Your task to perform on an android device: Search for sushi restaurants on Maps Image 0: 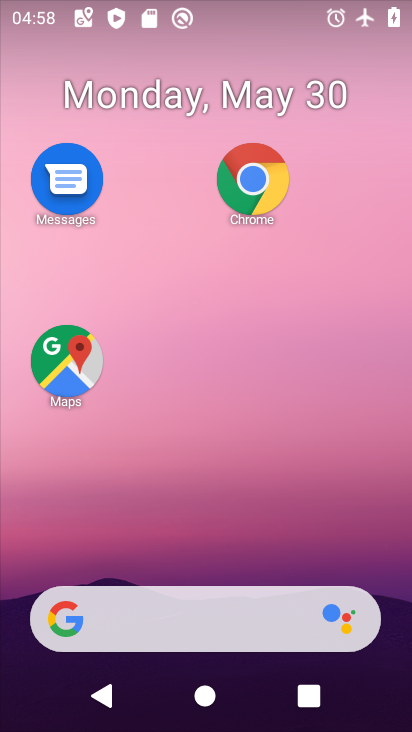
Step 0: click (66, 362)
Your task to perform on an android device: Search for sushi restaurants on Maps Image 1: 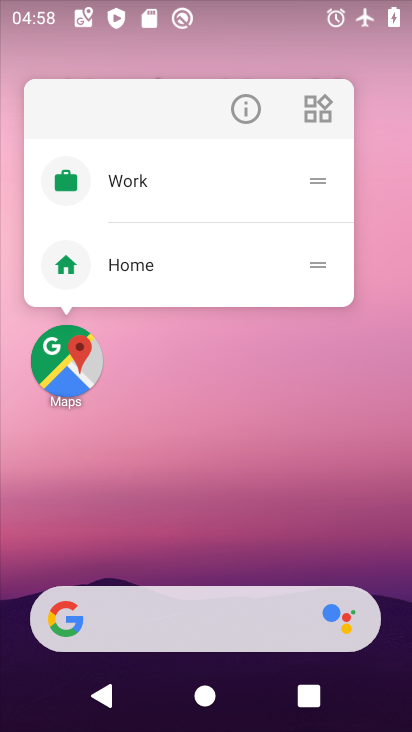
Step 1: click (65, 363)
Your task to perform on an android device: Search for sushi restaurants on Maps Image 2: 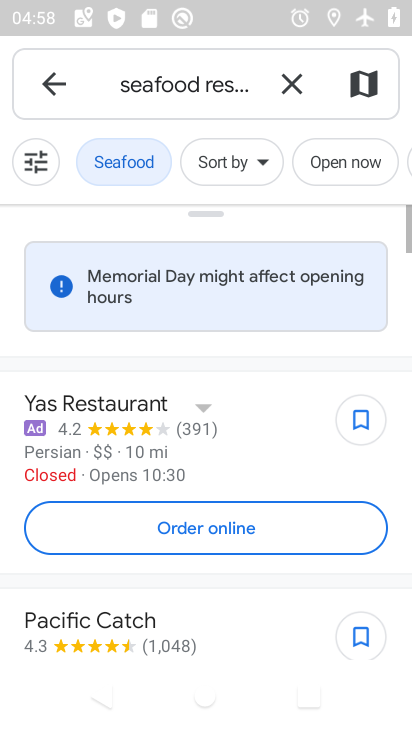
Step 2: click (296, 86)
Your task to perform on an android device: Search for sushi restaurants on Maps Image 3: 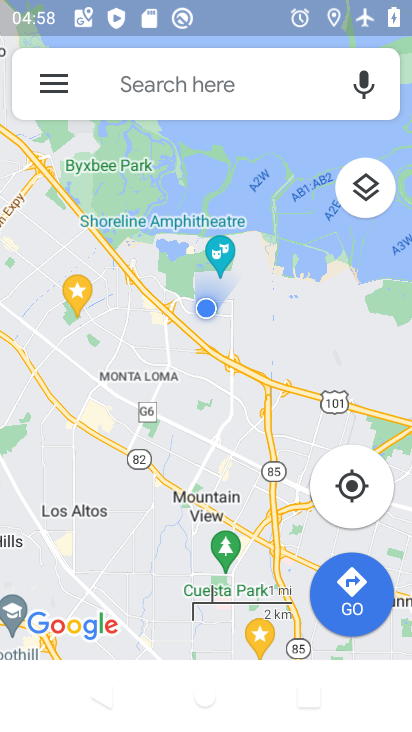
Step 3: click (162, 83)
Your task to perform on an android device: Search for sushi restaurants on Maps Image 4: 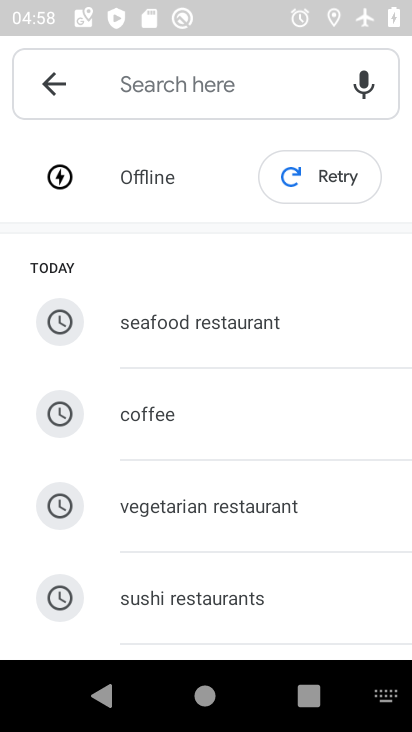
Step 4: click (156, 597)
Your task to perform on an android device: Search for sushi restaurants on Maps Image 5: 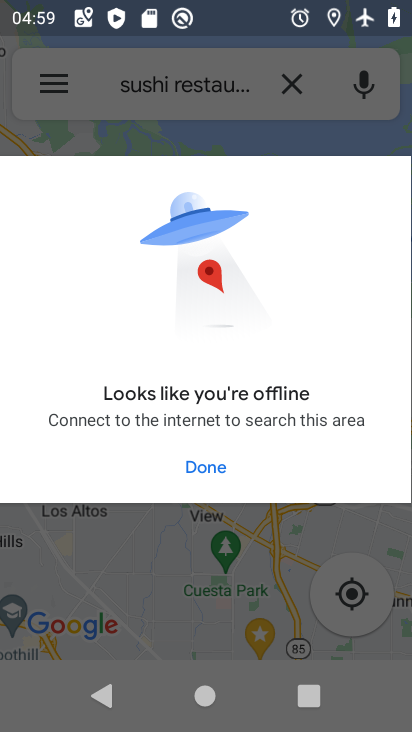
Step 5: press back button
Your task to perform on an android device: Search for sushi restaurants on Maps Image 6: 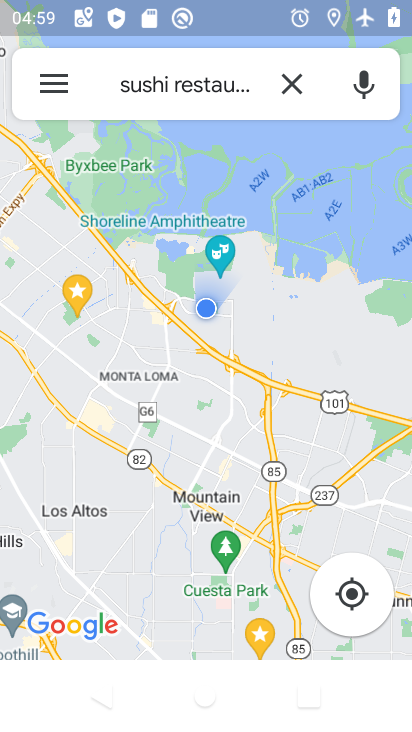
Step 6: press home button
Your task to perform on an android device: Search for sushi restaurants on Maps Image 7: 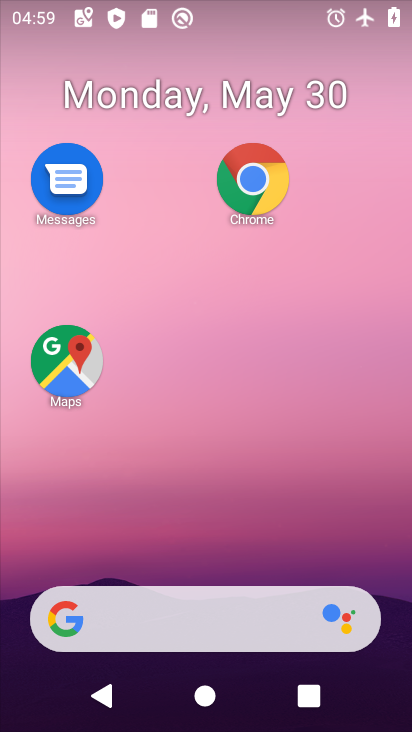
Step 7: drag from (212, 549) to (274, 85)
Your task to perform on an android device: Search for sushi restaurants on Maps Image 8: 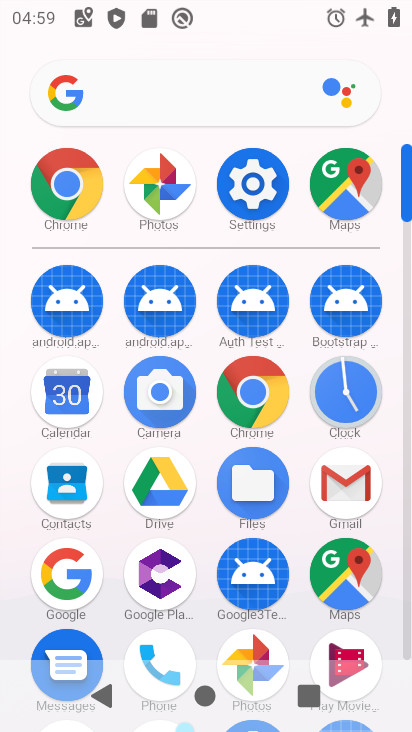
Step 8: click (350, 193)
Your task to perform on an android device: Search for sushi restaurants on Maps Image 9: 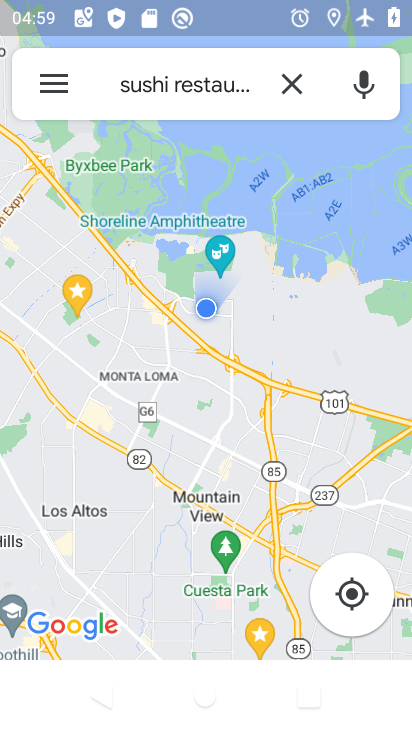
Step 9: press home button
Your task to perform on an android device: Search for sushi restaurants on Maps Image 10: 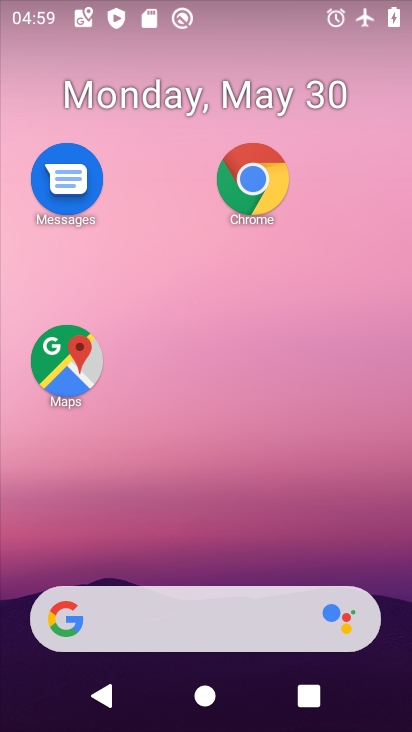
Step 10: drag from (221, 555) to (404, 209)
Your task to perform on an android device: Search for sushi restaurants on Maps Image 11: 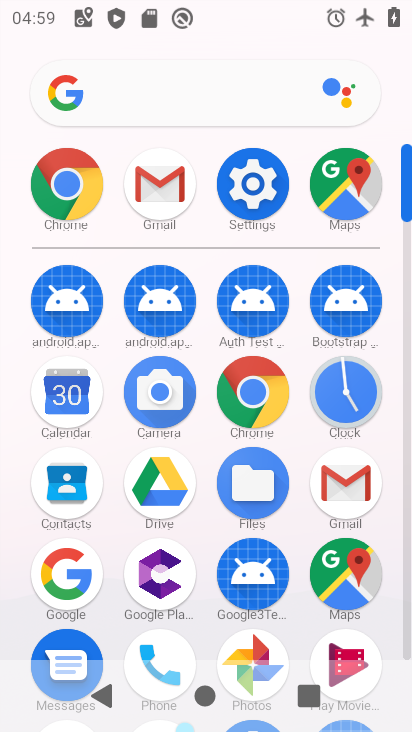
Step 11: click (259, 180)
Your task to perform on an android device: Search for sushi restaurants on Maps Image 12: 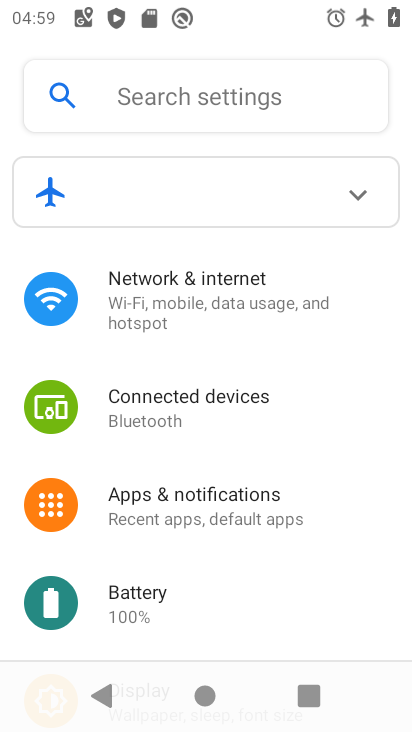
Step 12: click (358, 191)
Your task to perform on an android device: Search for sushi restaurants on Maps Image 13: 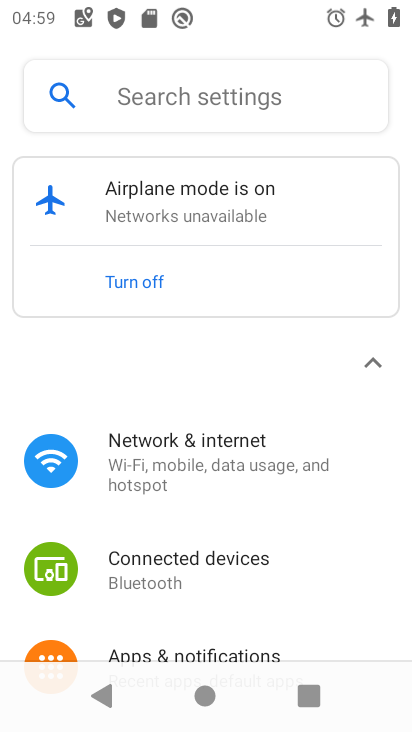
Step 13: click (144, 276)
Your task to perform on an android device: Search for sushi restaurants on Maps Image 14: 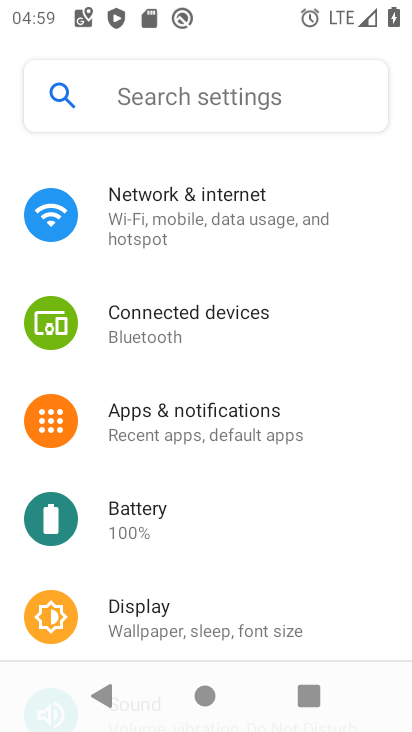
Step 14: press home button
Your task to perform on an android device: Search for sushi restaurants on Maps Image 15: 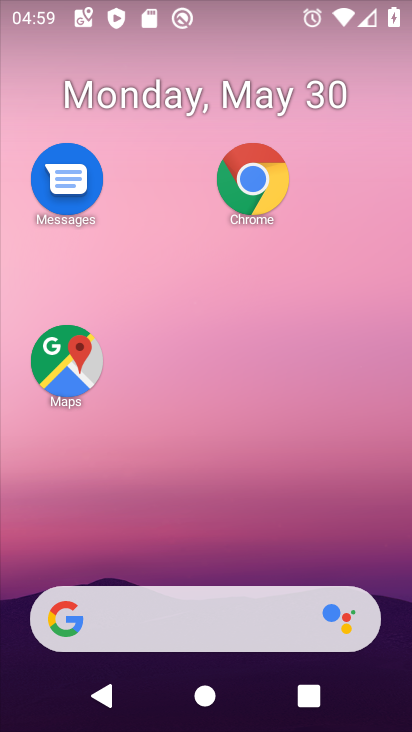
Step 15: click (82, 360)
Your task to perform on an android device: Search for sushi restaurants on Maps Image 16: 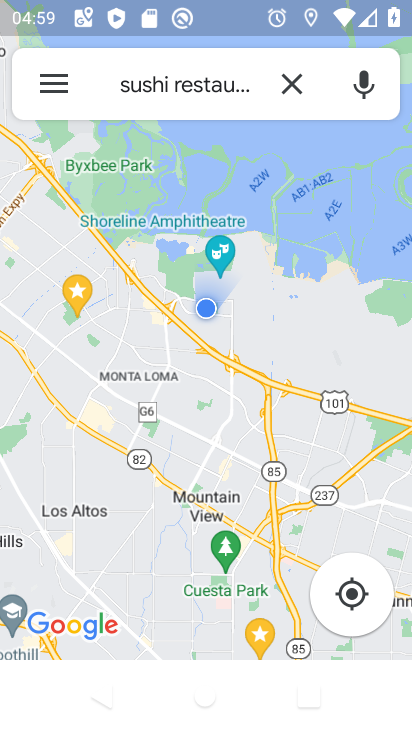
Step 16: click (280, 87)
Your task to perform on an android device: Search for sushi restaurants on Maps Image 17: 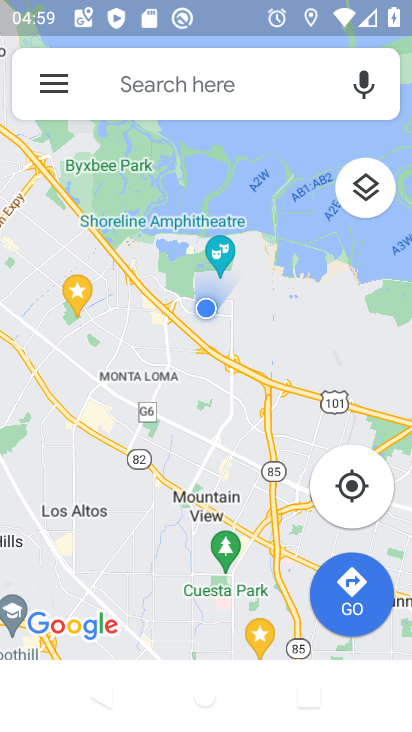
Step 17: click (202, 91)
Your task to perform on an android device: Search for sushi restaurants on Maps Image 18: 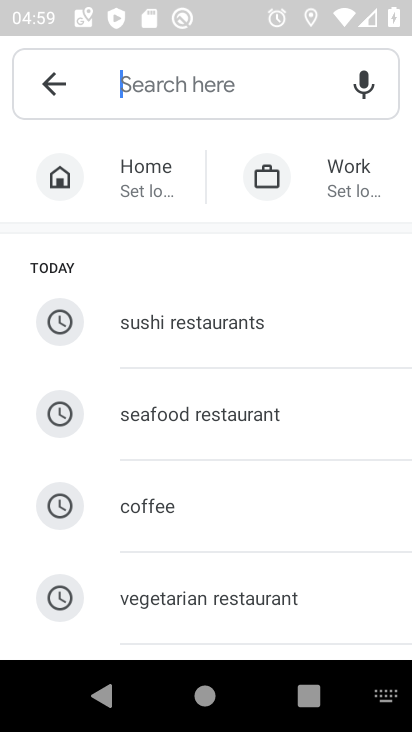
Step 18: click (214, 322)
Your task to perform on an android device: Search for sushi restaurants on Maps Image 19: 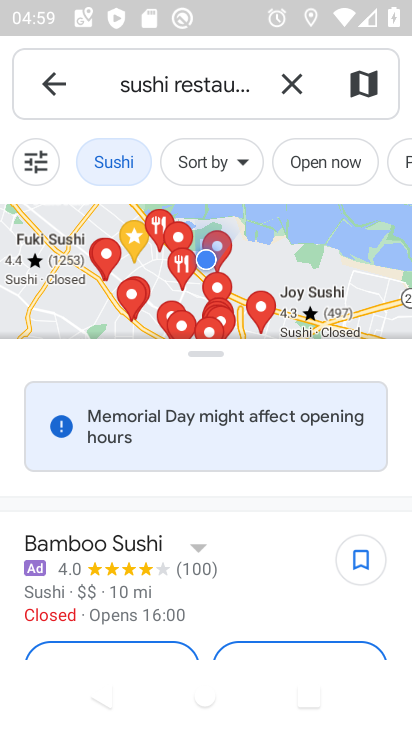
Step 19: task complete